Your task to perform on an android device: Open Google Chrome and open the bookmarks view Image 0: 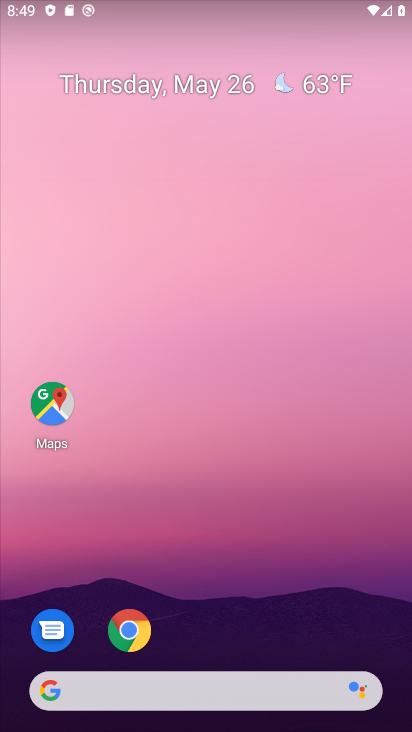
Step 0: drag from (321, 708) to (250, 235)
Your task to perform on an android device: Open Google Chrome and open the bookmarks view Image 1: 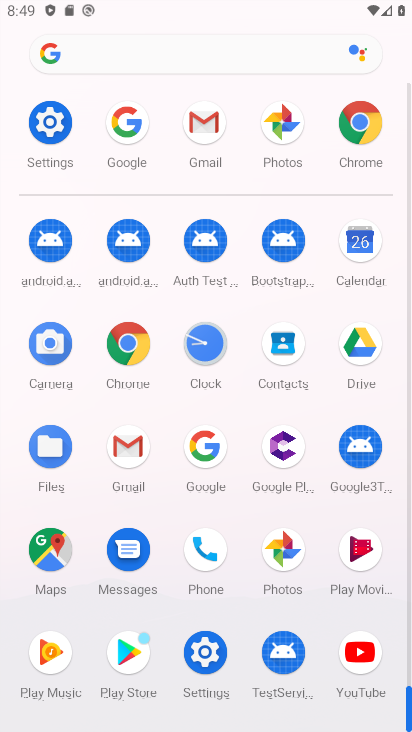
Step 1: click (355, 133)
Your task to perform on an android device: Open Google Chrome and open the bookmarks view Image 2: 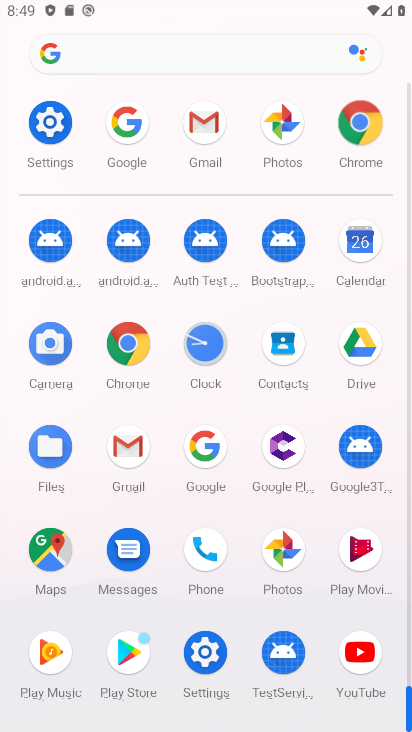
Step 2: click (355, 133)
Your task to perform on an android device: Open Google Chrome and open the bookmarks view Image 3: 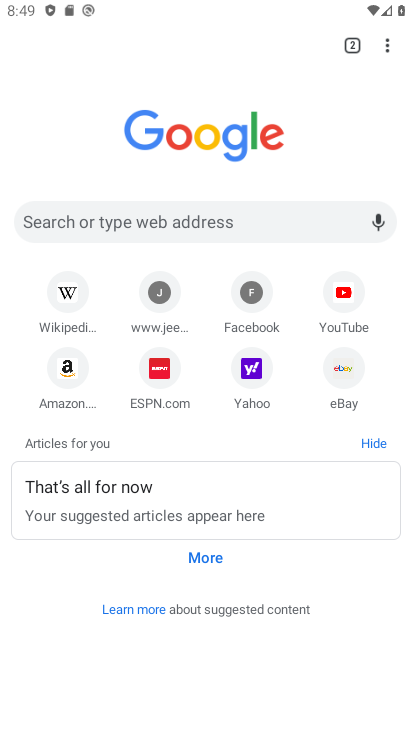
Step 3: drag from (387, 51) to (232, 167)
Your task to perform on an android device: Open Google Chrome and open the bookmarks view Image 4: 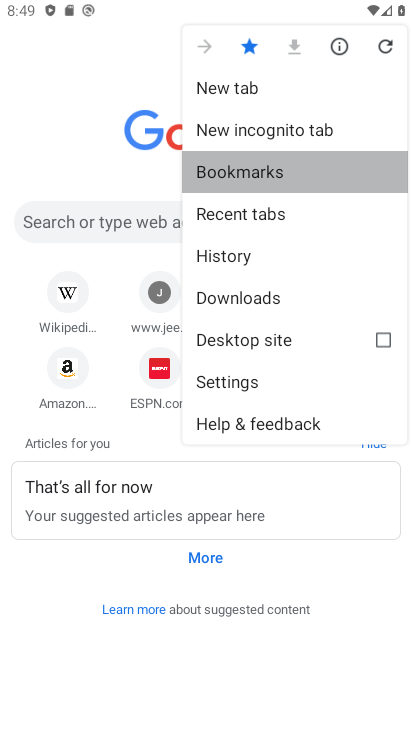
Step 4: click (232, 167)
Your task to perform on an android device: Open Google Chrome and open the bookmarks view Image 5: 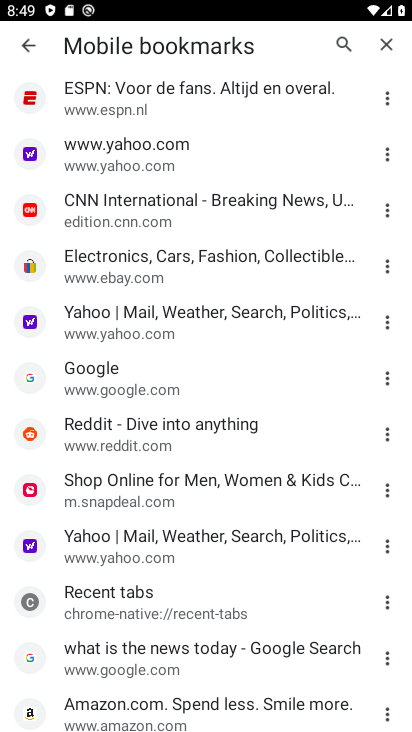
Step 5: task complete